Your task to perform on an android device: read, delete, or share a saved page in the chrome app Image 0: 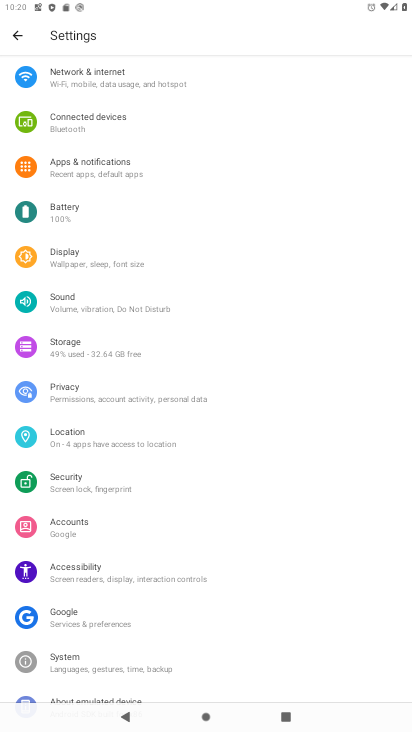
Step 0: press home button
Your task to perform on an android device: read, delete, or share a saved page in the chrome app Image 1: 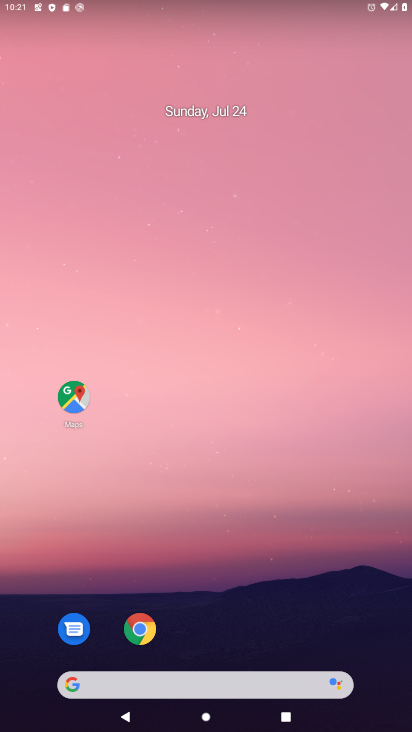
Step 1: drag from (201, 637) to (312, 141)
Your task to perform on an android device: read, delete, or share a saved page in the chrome app Image 2: 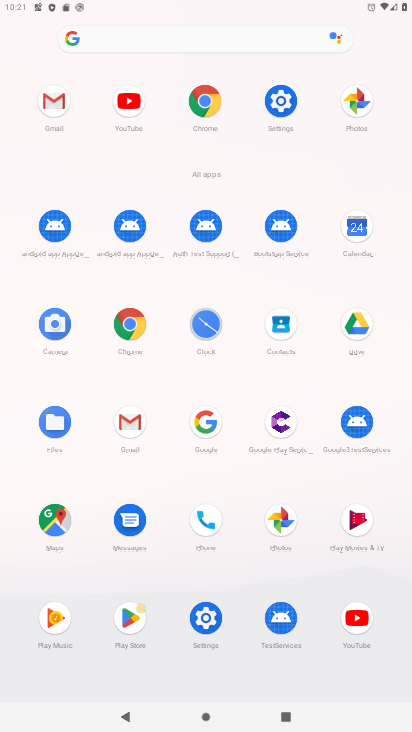
Step 2: click (127, 326)
Your task to perform on an android device: read, delete, or share a saved page in the chrome app Image 3: 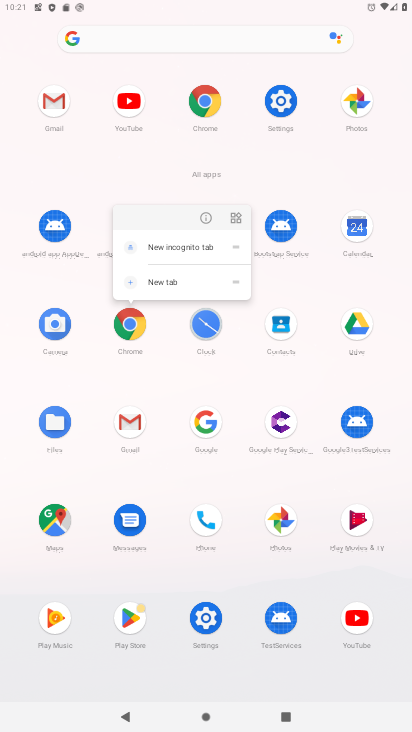
Step 3: click (202, 219)
Your task to perform on an android device: read, delete, or share a saved page in the chrome app Image 4: 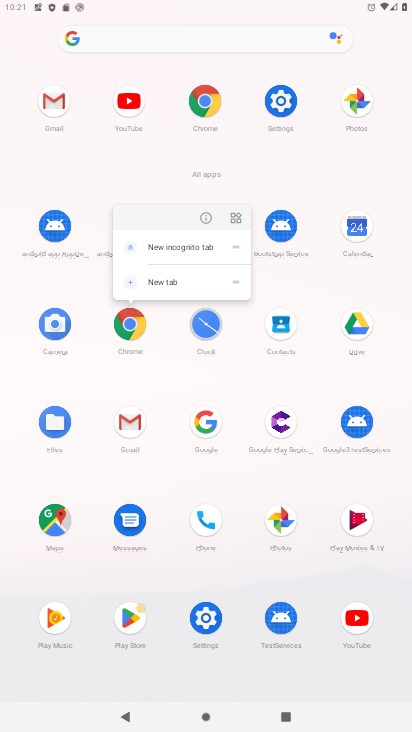
Step 4: click (203, 219)
Your task to perform on an android device: read, delete, or share a saved page in the chrome app Image 5: 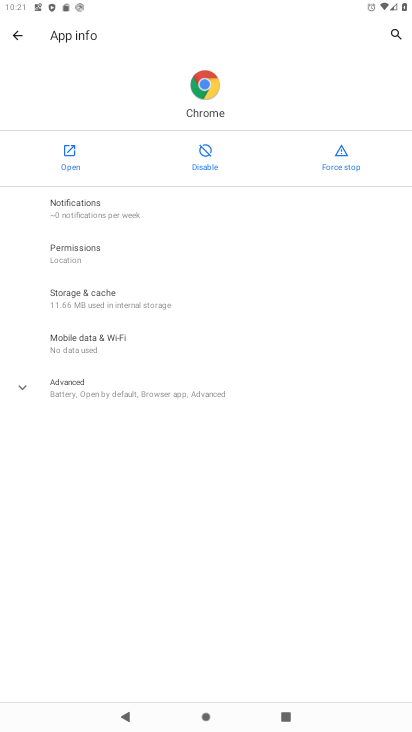
Step 5: click (76, 161)
Your task to perform on an android device: read, delete, or share a saved page in the chrome app Image 6: 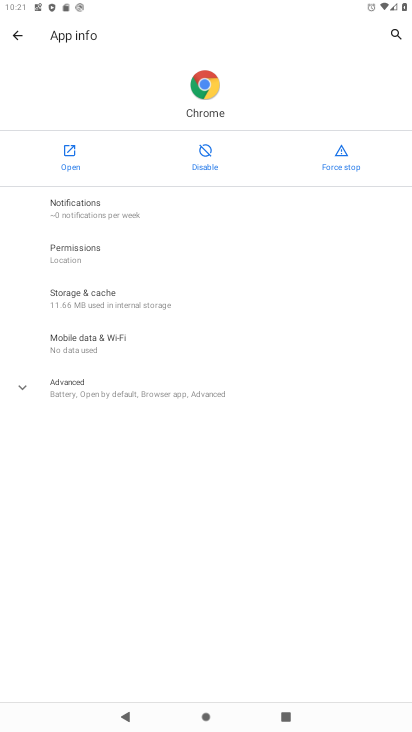
Step 6: click (80, 162)
Your task to perform on an android device: read, delete, or share a saved page in the chrome app Image 7: 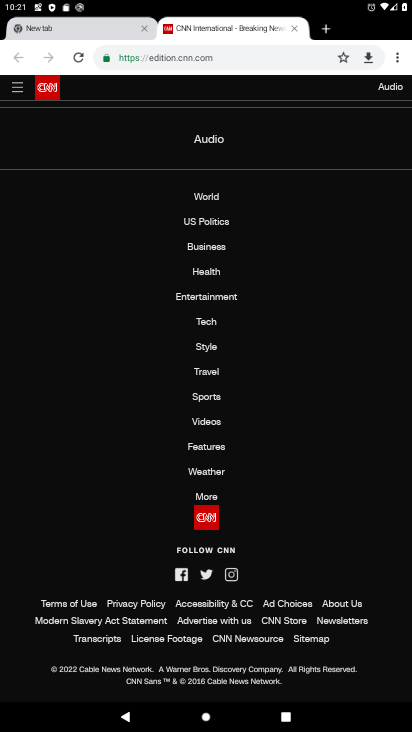
Step 7: drag from (391, 58) to (298, 118)
Your task to perform on an android device: read, delete, or share a saved page in the chrome app Image 8: 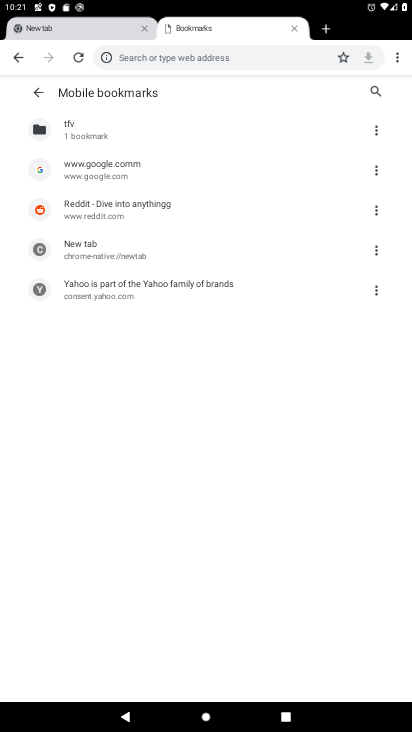
Step 8: click (149, 205)
Your task to perform on an android device: read, delete, or share a saved page in the chrome app Image 9: 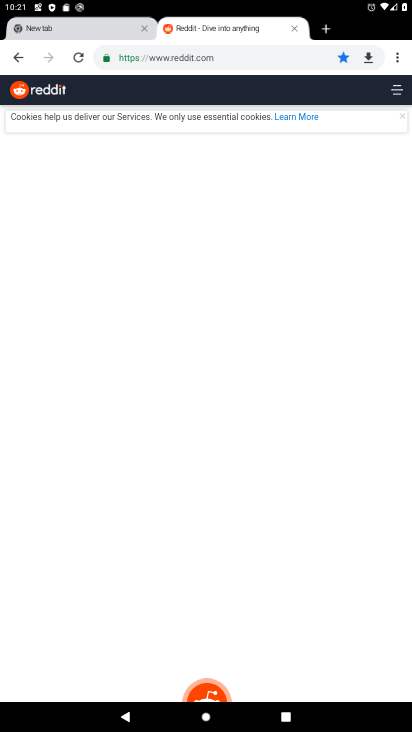
Step 9: task complete